Your task to perform on an android device: Open settings Image 0: 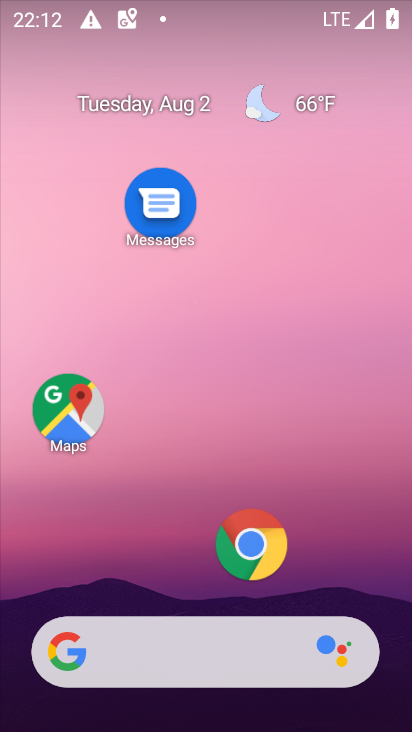
Step 0: drag from (153, 577) to (212, 123)
Your task to perform on an android device: Open settings Image 1: 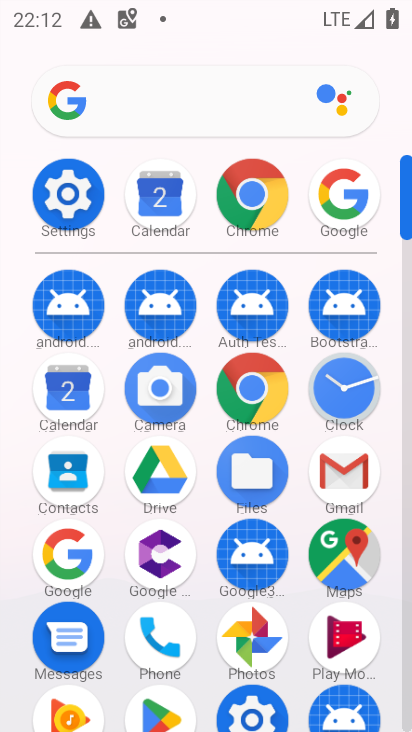
Step 1: click (94, 218)
Your task to perform on an android device: Open settings Image 2: 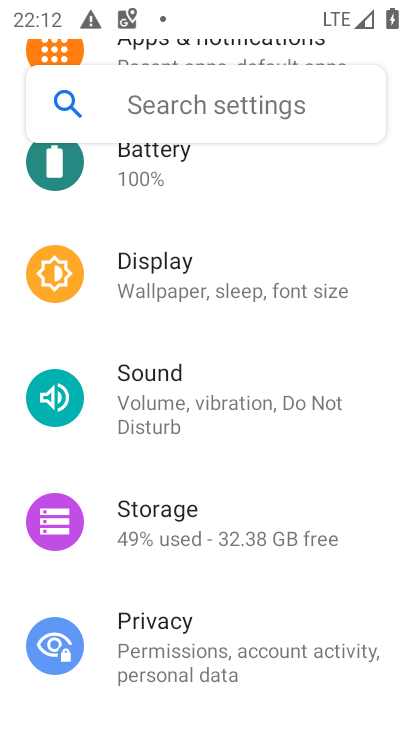
Step 2: task complete